Your task to perform on an android device: open chrome and create a bookmark for the current page Image 0: 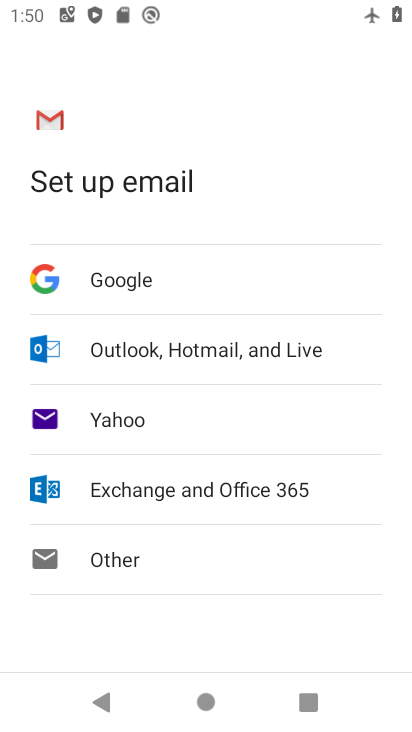
Step 0: press home button
Your task to perform on an android device: open chrome and create a bookmark for the current page Image 1: 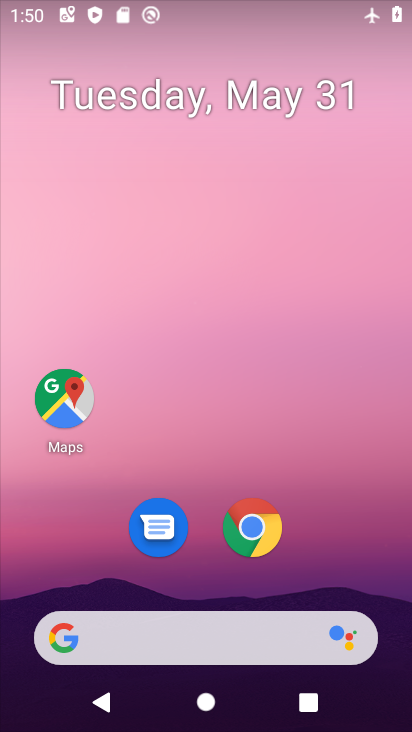
Step 1: drag from (320, 560) to (279, 80)
Your task to perform on an android device: open chrome and create a bookmark for the current page Image 2: 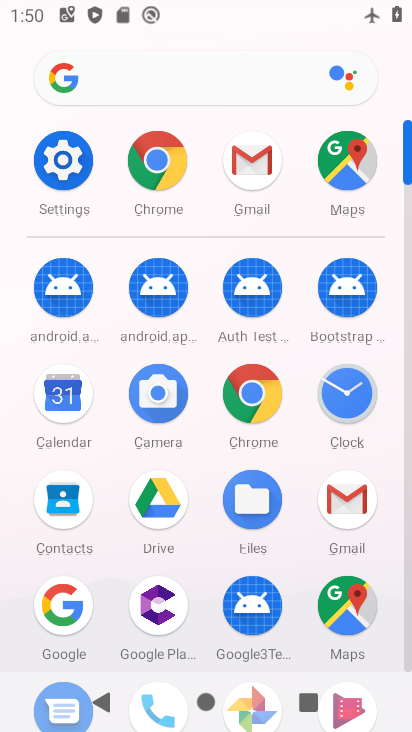
Step 2: click (138, 158)
Your task to perform on an android device: open chrome and create a bookmark for the current page Image 3: 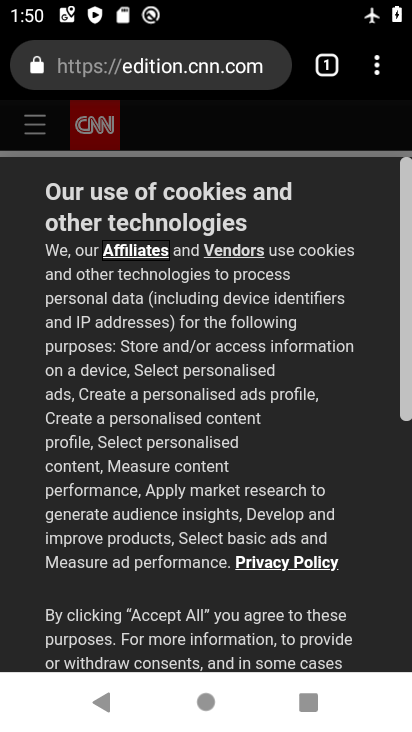
Step 3: task complete